Your task to perform on an android device: open app "Booking.com: Hotels and more" Image 0: 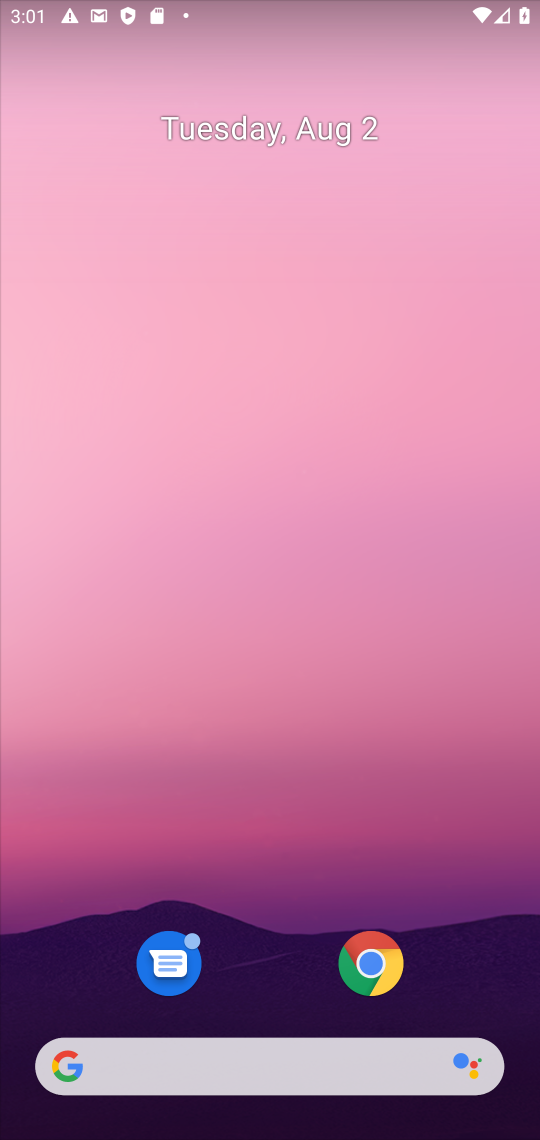
Step 0: drag from (261, 961) to (249, 387)
Your task to perform on an android device: open app "Booking.com: Hotels and more" Image 1: 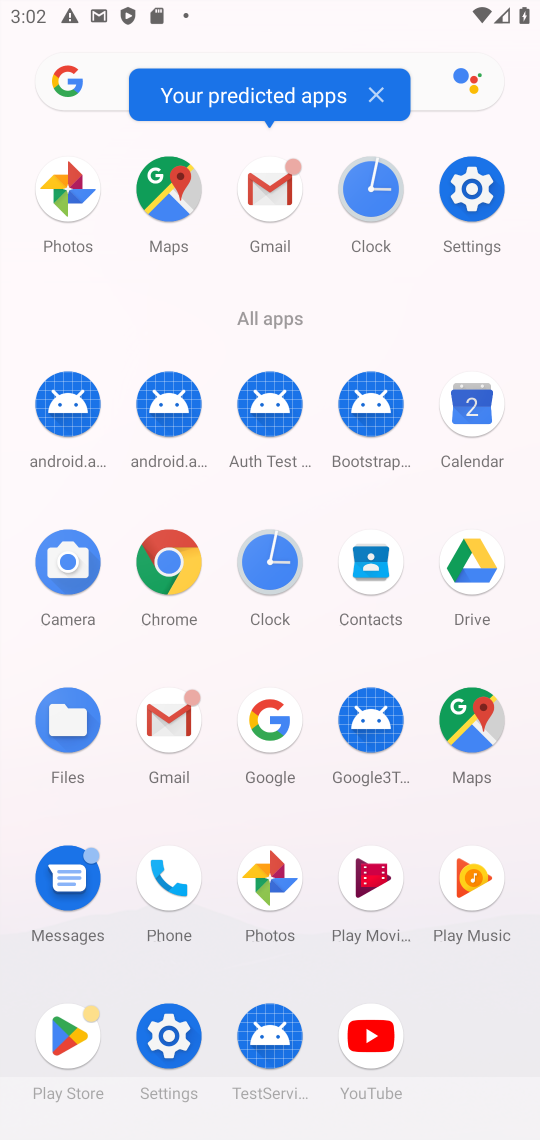
Step 1: click (86, 1025)
Your task to perform on an android device: open app "Booking.com: Hotels and more" Image 2: 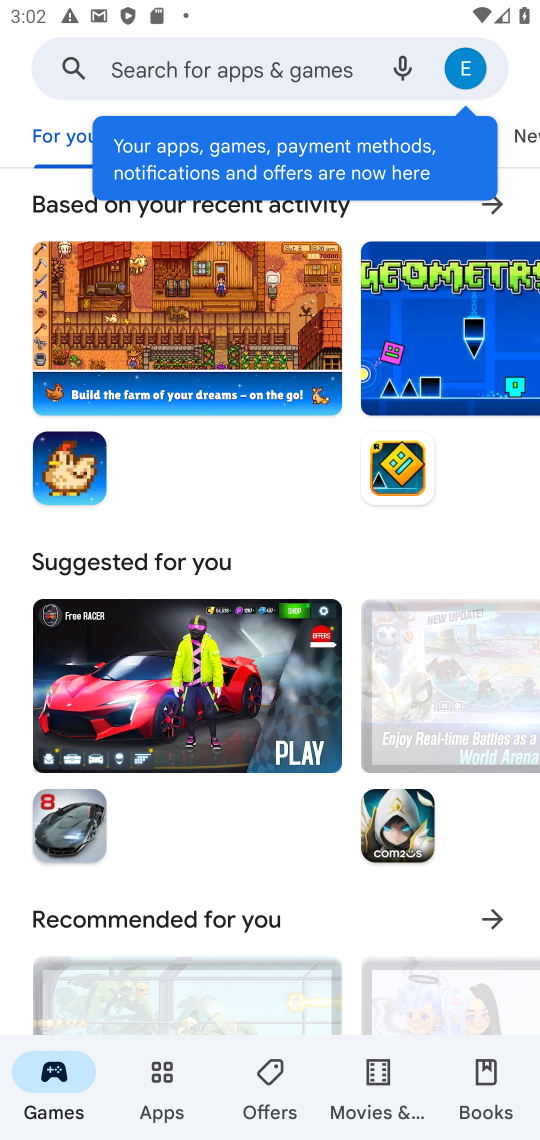
Step 2: click (306, 65)
Your task to perform on an android device: open app "Booking.com: Hotels and more" Image 3: 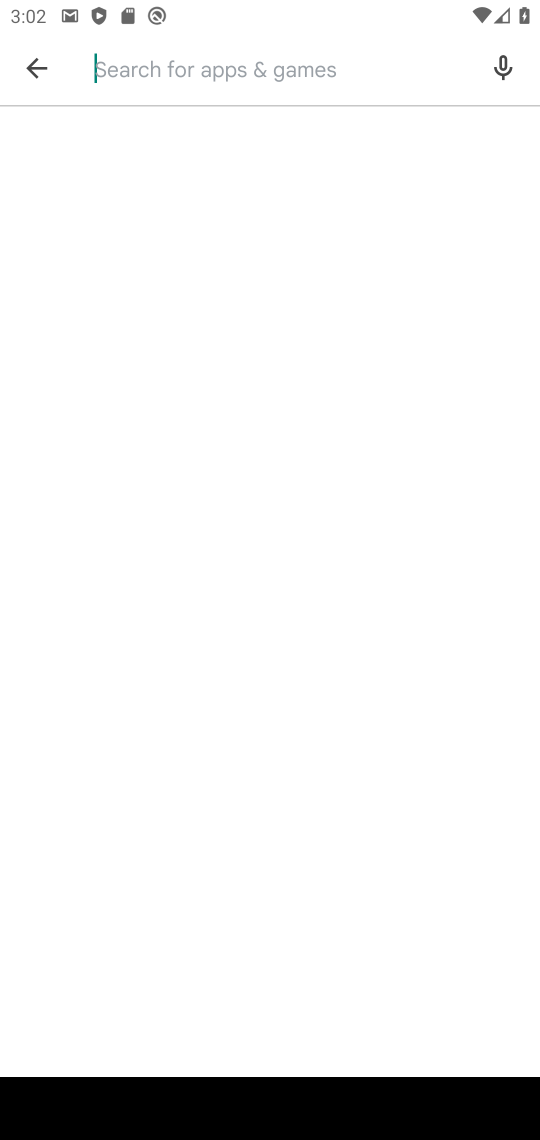
Step 3: type "booking.com: hotels and more"
Your task to perform on an android device: open app "Booking.com: Hotels and more" Image 4: 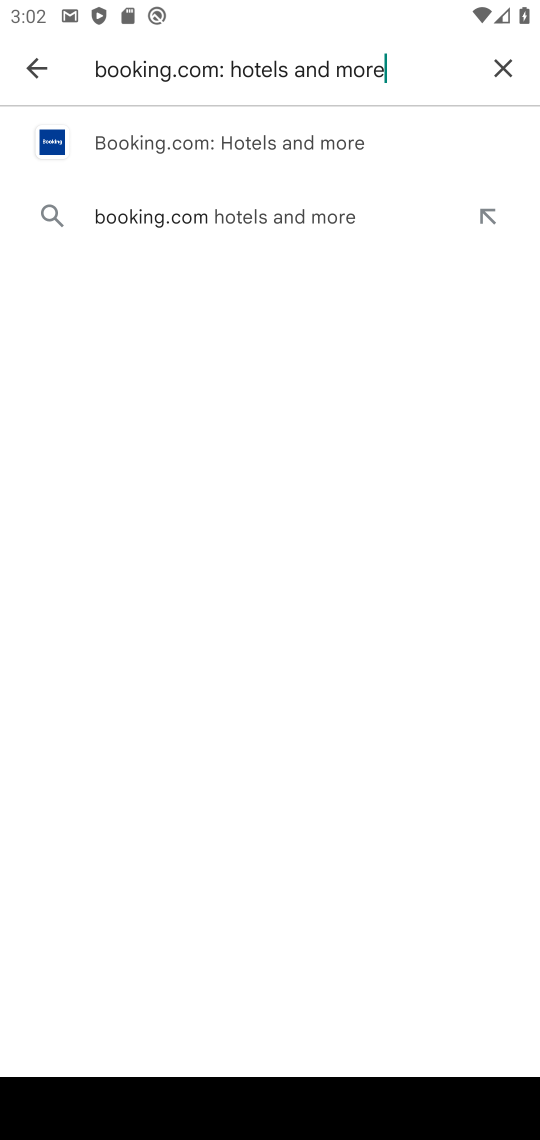
Step 4: click (115, 151)
Your task to perform on an android device: open app "Booking.com: Hotels and more" Image 5: 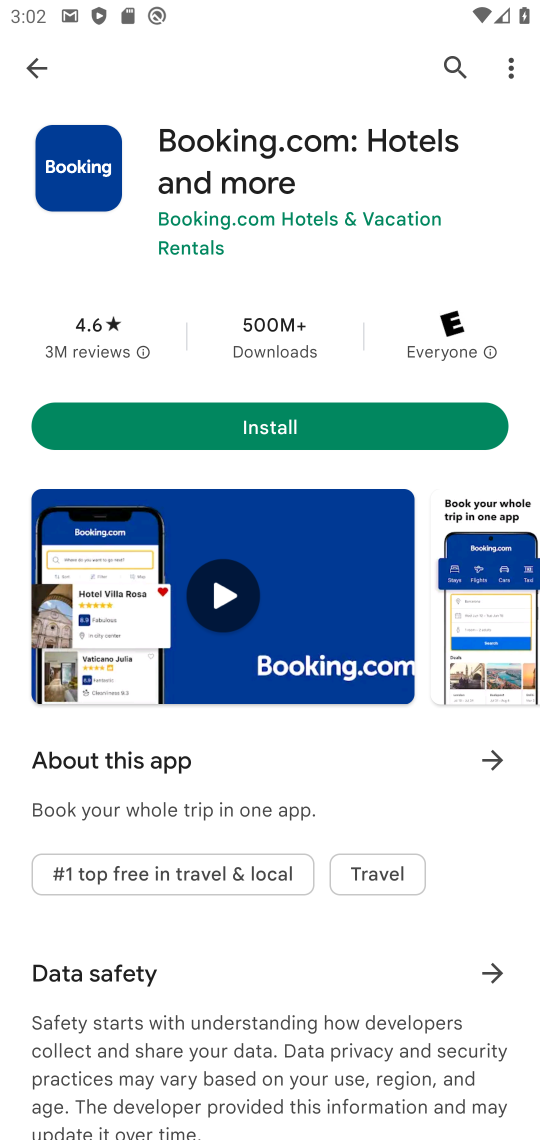
Step 5: task complete